Your task to perform on an android device: turn on improve location accuracy Image 0: 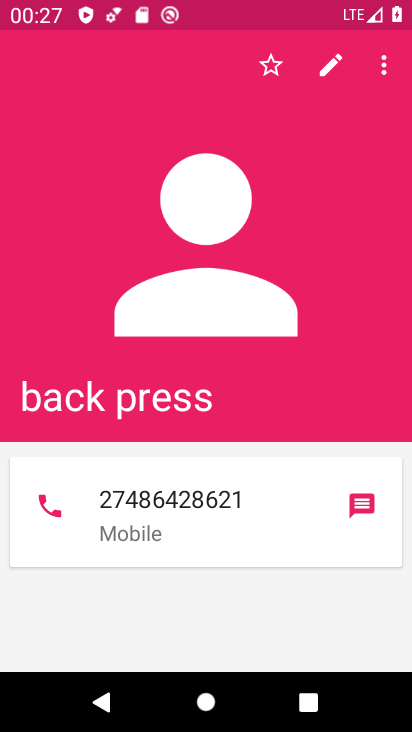
Step 0: press home button
Your task to perform on an android device: turn on improve location accuracy Image 1: 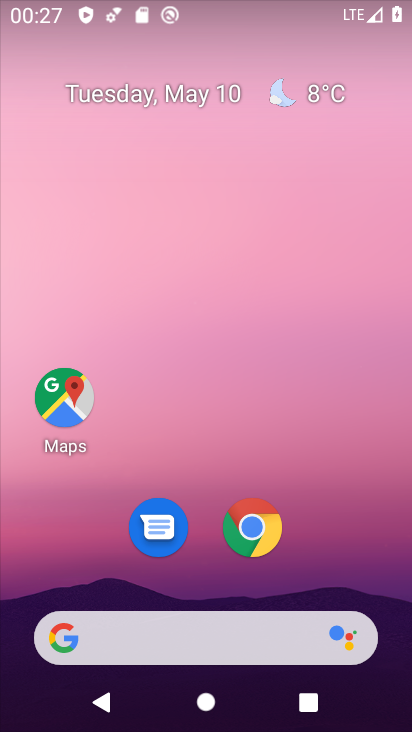
Step 1: drag from (344, 566) to (118, 194)
Your task to perform on an android device: turn on improve location accuracy Image 2: 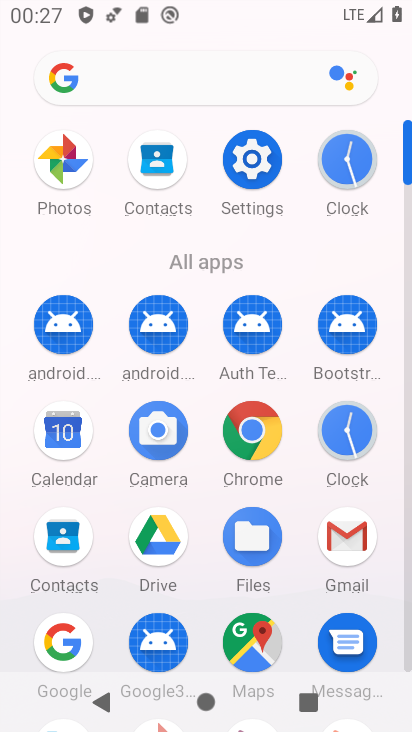
Step 2: click (258, 170)
Your task to perform on an android device: turn on improve location accuracy Image 3: 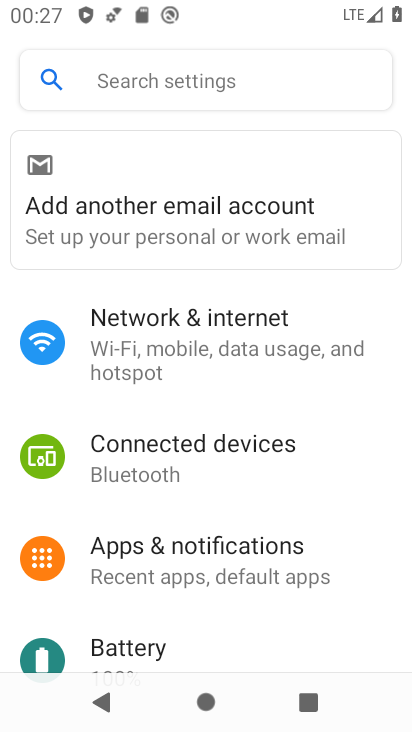
Step 3: drag from (190, 624) to (204, 240)
Your task to perform on an android device: turn on improve location accuracy Image 4: 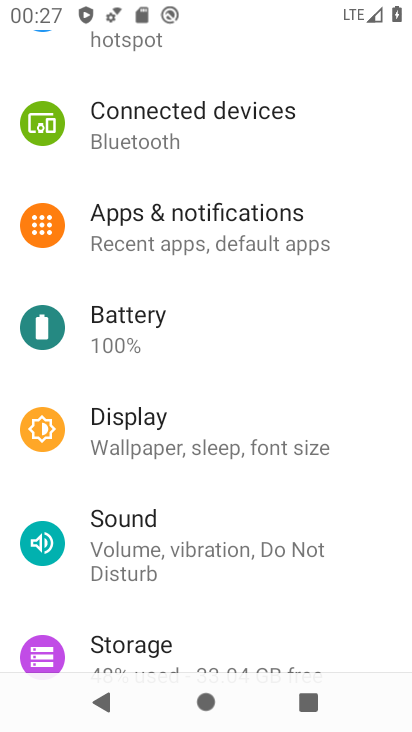
Step 4: drag from (238, 634) to (207, 180)
Your task to perform on an android device: turn on improve location accuracy Image 5: 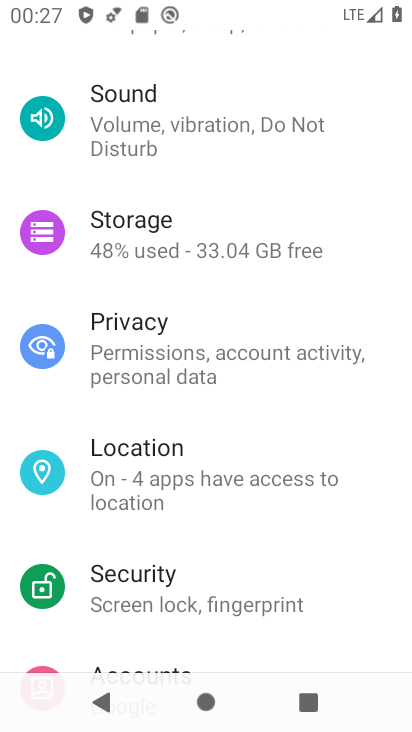
Step 5: click (159, 465)
Your task to perform on an android device: turn on improve location accuracy Image 6: 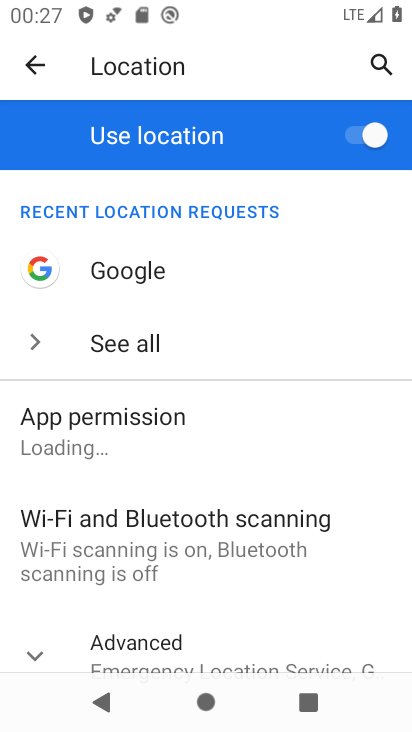
Step 6: click (151, 656)
Your task to perform on an android device: turn on improve location accuracy Image 7: 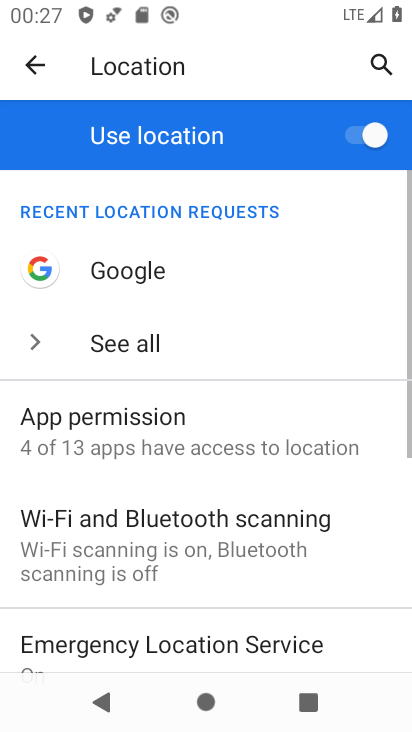
Step 7: task complete